Your task to perform on an android device: Go to Reddit.com Image 0: 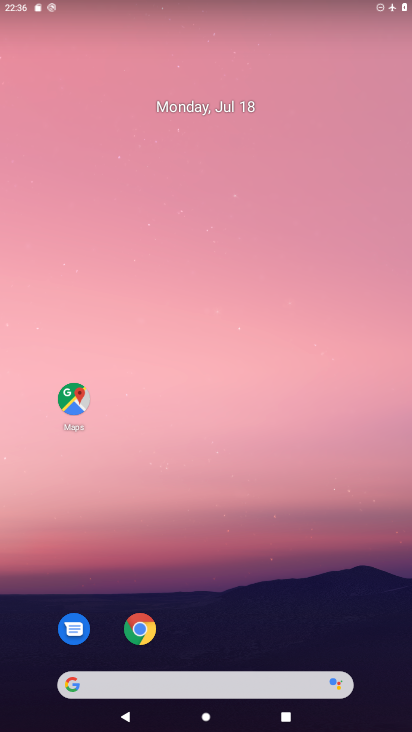
Step 0: drag from (160, 231) to (175, 34)
Your task to perform on an android device: Go to Reddit.com Image 1: 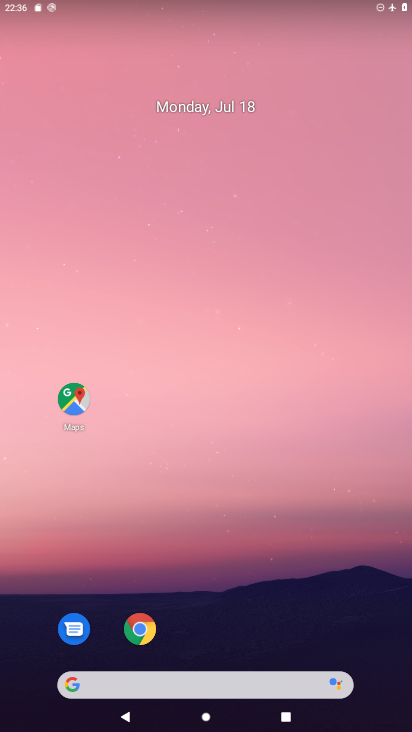
Step 1: drag from (306, 576) to (183, 96)
Your task to perform on an android device: Go to Reddit.com Image 2: 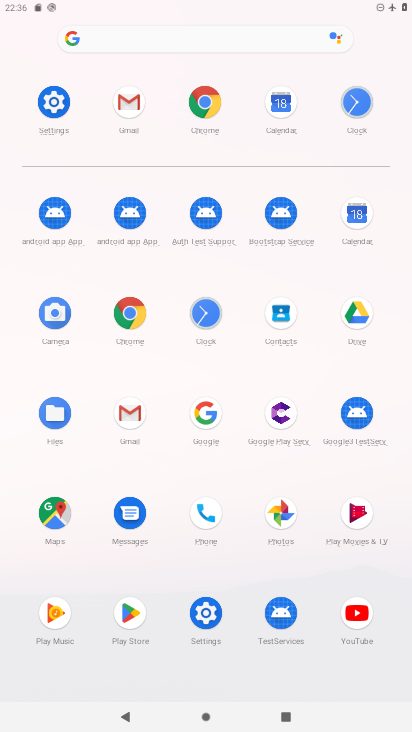
Step 2: click (205, 108)
Your task to perform on an android device: Go to Reddit.com Image 3: 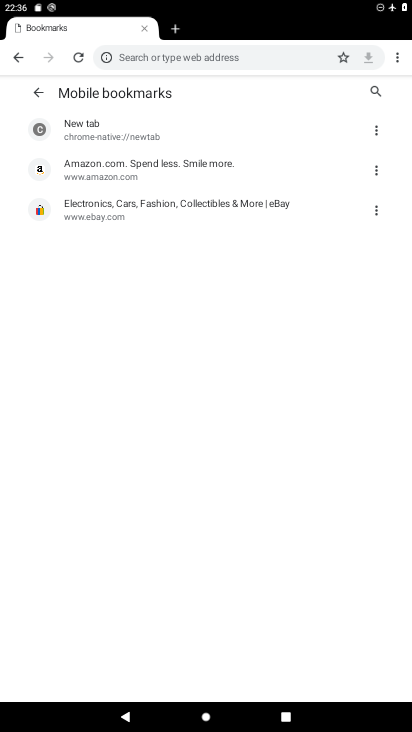
Step 3: click (223, 47)
Your task to perform on an android device: Go to Reddit.com Image 4: 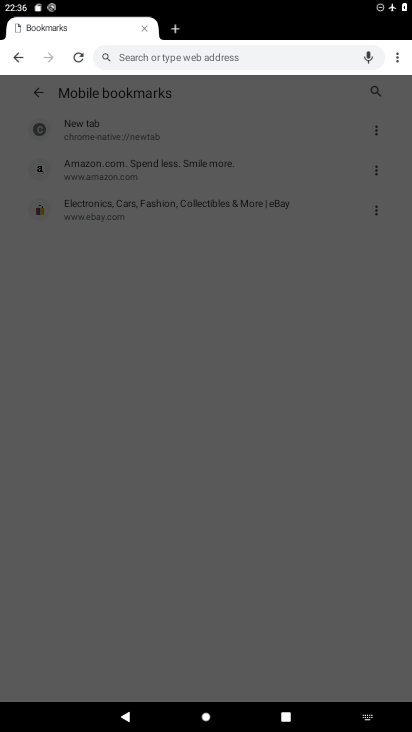
Step 4: type "reddit.com"
Your task to perform on an android device: Go to Reddit.com Image 5: 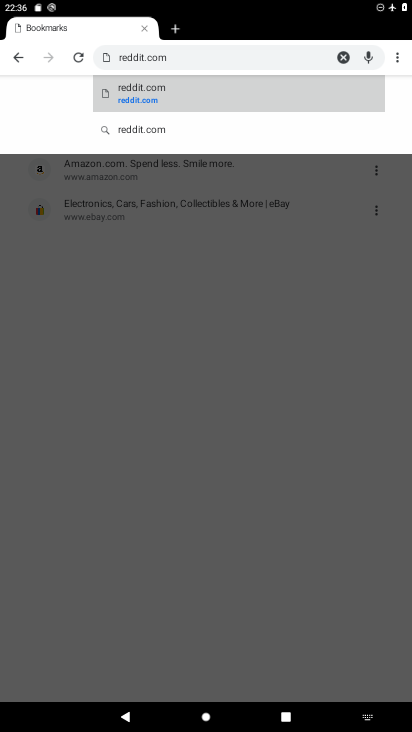
Step 5: click (257, 106)
Your task to perform on an android device: Go to Reddit.com Image 6: 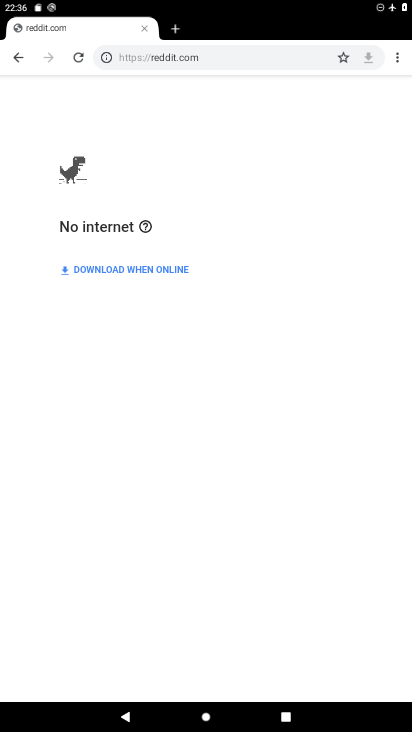
Step 6: task complete